Your task to perform on an android device: Open Google Chrome and click the shortcut for Amazon.com Image 0: 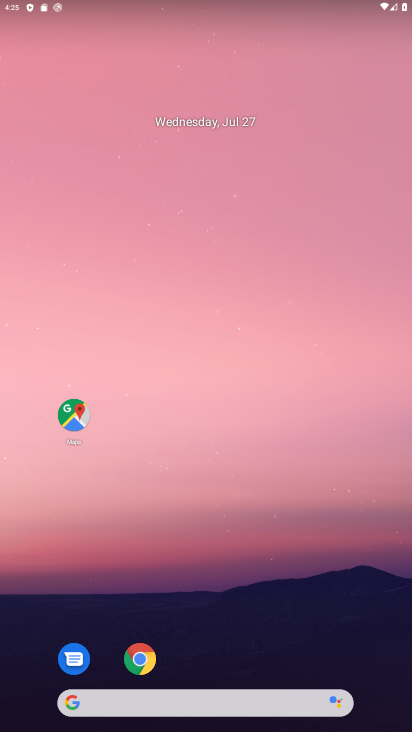
Step 0: click (144, 656)
Your task to perform on an android device: Open Google Chrome and click the shortcut for Amazon.com Image 1: 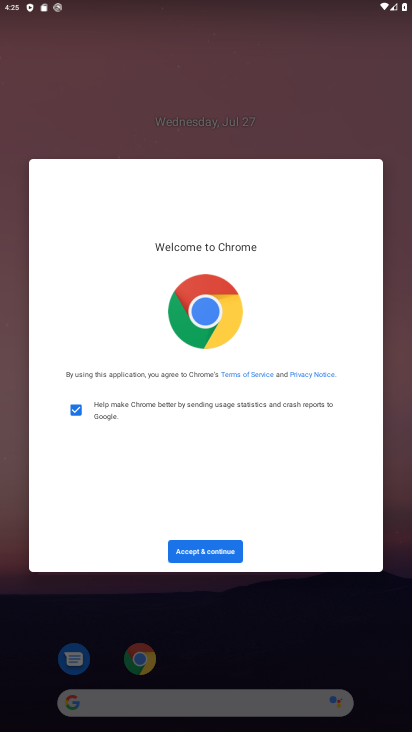
Step 1: click (209, 554)
Your task to perform on an android device: Open Google Chrome and click the shortcut for Amazon.com Image 2: 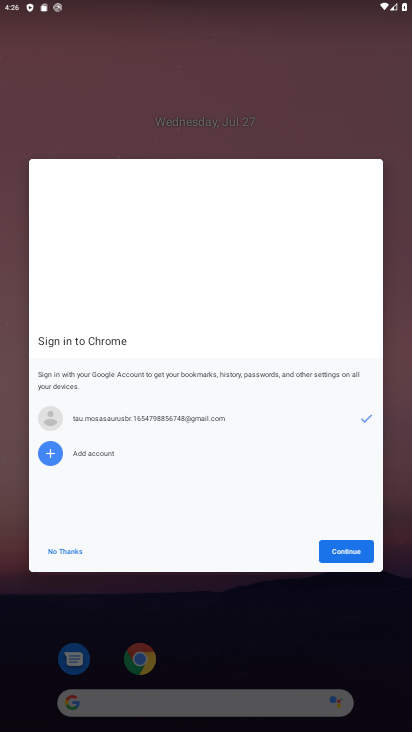
Step 2: click (352, 558)
Your task to perform on an android device: Open Google Chrome and click the shortcut for Amazon.com Image 3: 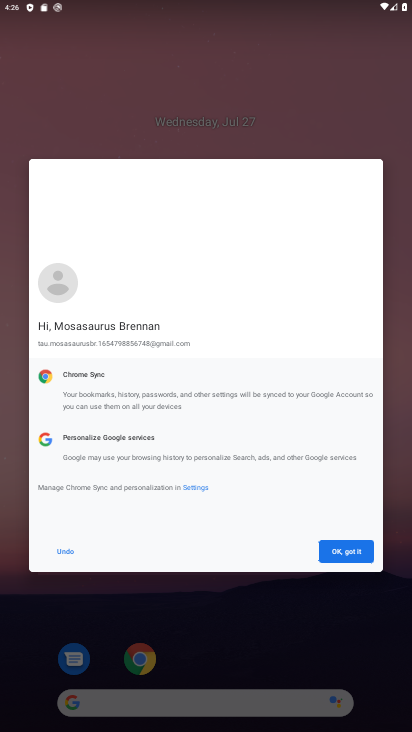
Step 3: click (352, 554)
Your task to perform on an android device: Open Google Chrome and click the shortcut for Amazon.com Image 4: 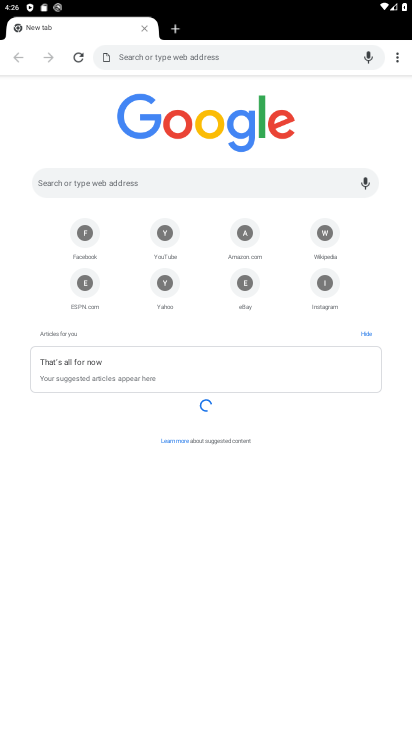
Step 4: click (242, 245)
Your task to perform on an android device: Open Google Chrome and click the shortcut for Amazon.com Image 5: 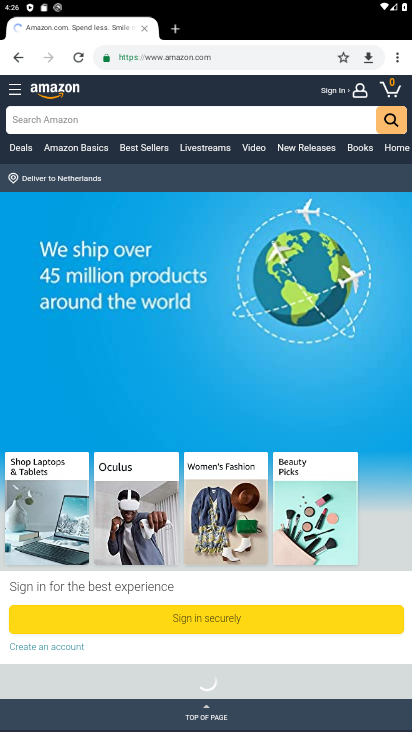
Step 5: task complete